Your task to perform on an android device: delete a single message in the gmail app Image 0: 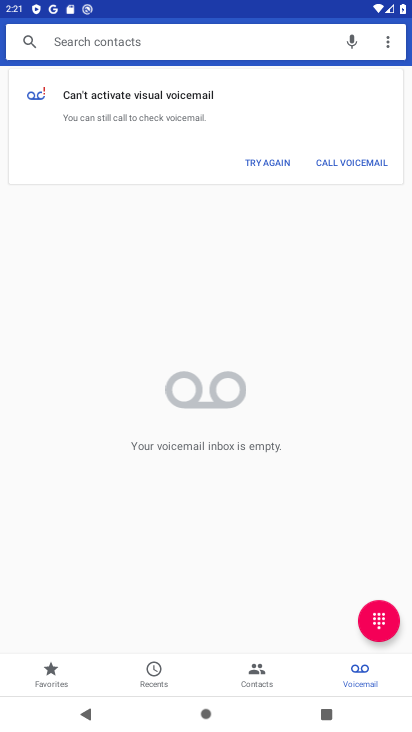
Step 0: press home button
Your task to perform on an android device: delete a single message in the gmail app Image 1: 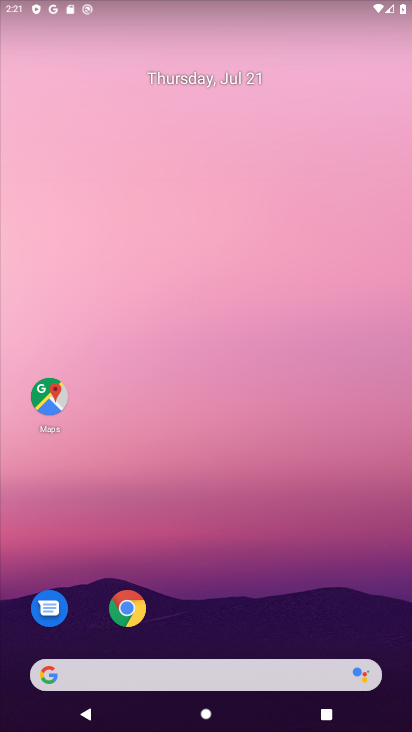
Step 1: drag from (233, 645) to (202, 13)
Your task to perform on an android device: delete a single message in the gmail app Image 2: 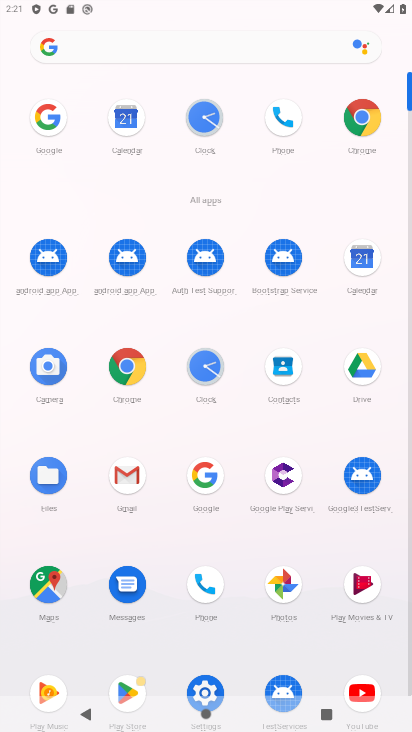
Step 2: click (124, 474)
Your task to perform on an android device: delete a single message in the gmail app Image 3: 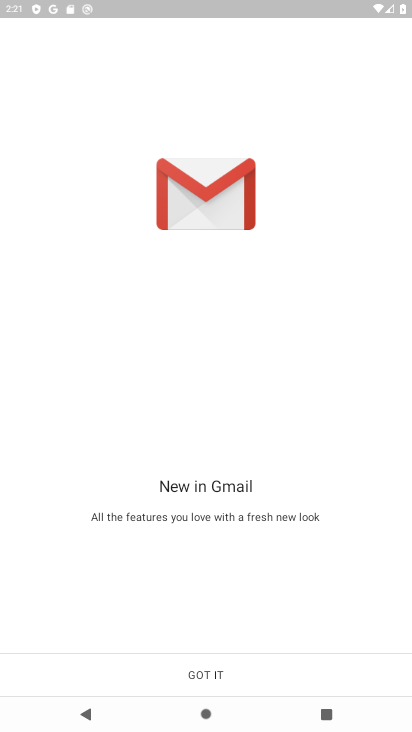
Step 3: click (230, 676)
Your task to perform on an android device: delete a single message in the gmail app Image 4: 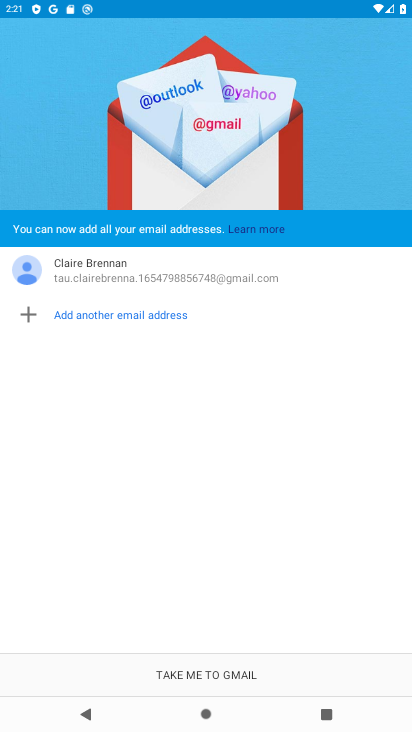
Step 4: click (230, 676)
Your task to perform on an android device: delete a single message in the gmail app Image 5: 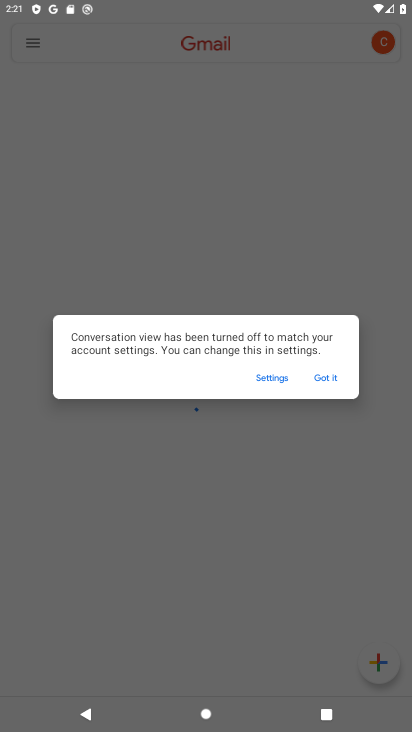
Step 5: click (319, 370)
Your task to perform on an android device: delete a single message in the gmail app Image 6: 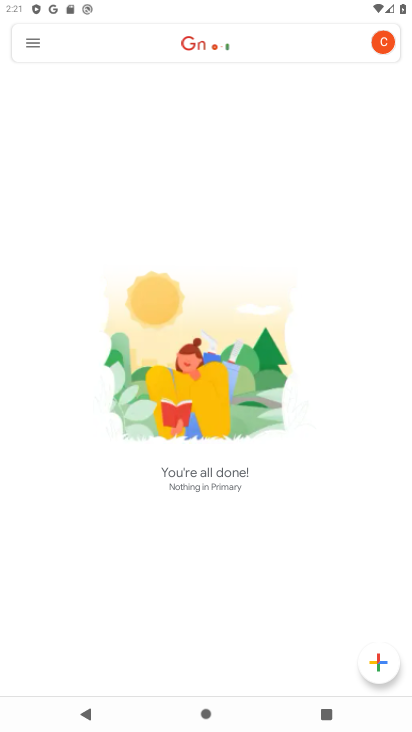
Step 6: task complete